Your task to perform on an android device: Search for pizza restaurants on Maps Image 0: 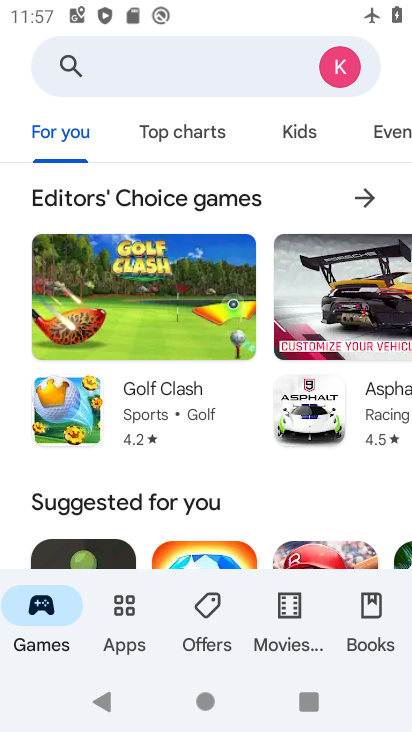
Step 0: press home button
Your task to perform on an android device: Search for pizza restaurants on Maps Image 1: 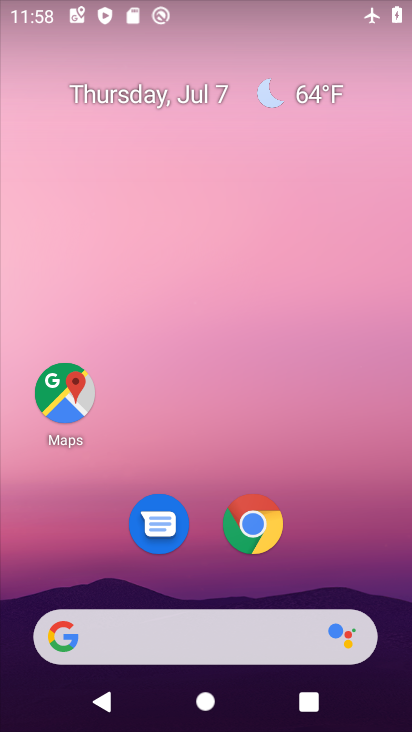
Step 1: click (77, 388)
Your task to perform on an android device: Search for pizza restaurants on Maps Image 2: 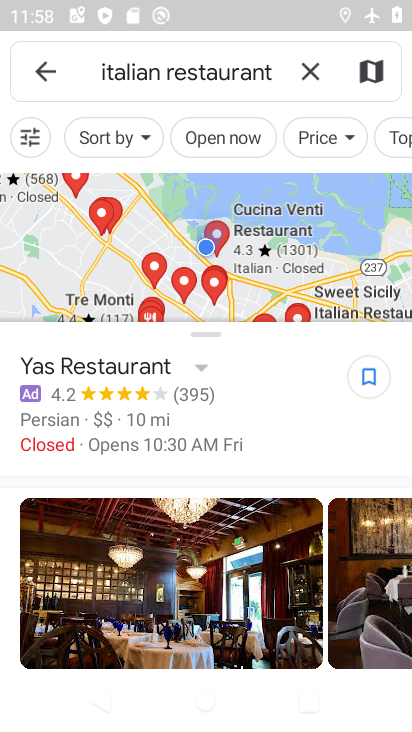
Step 2: click (307, 67)
Your task to perform on an android device: Search for pizza restaurants on Maps Image 3: 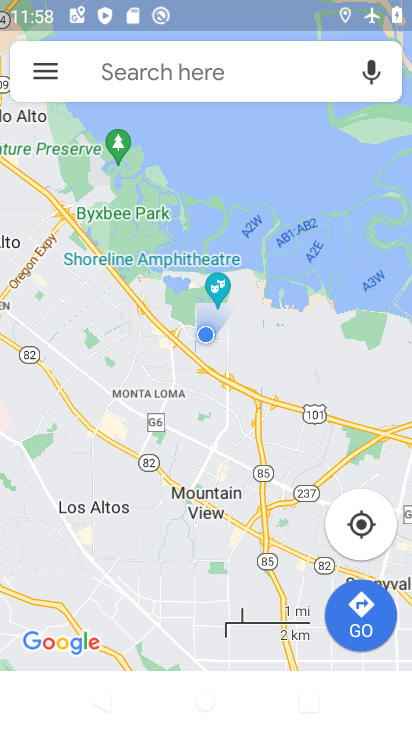
Step 3: click (235, 60)
Your task to perform on an android device: Search for pizza restaurants on Maps Image 4: 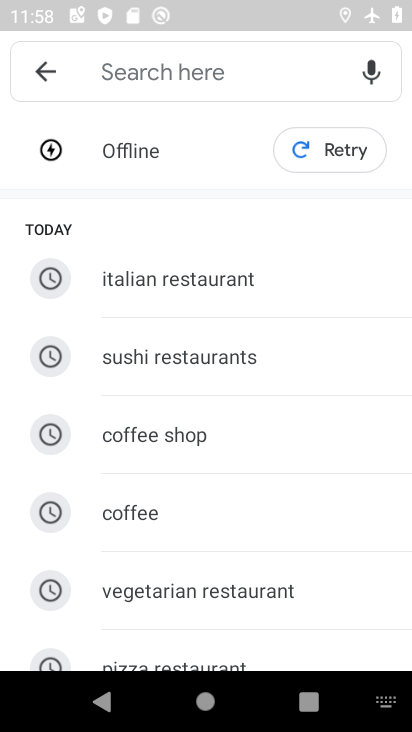
Step 4: drag from (253, 564) to (215, 382)
Your task to perform on an android device: Search for pizza restaurants on Maps Image 5: 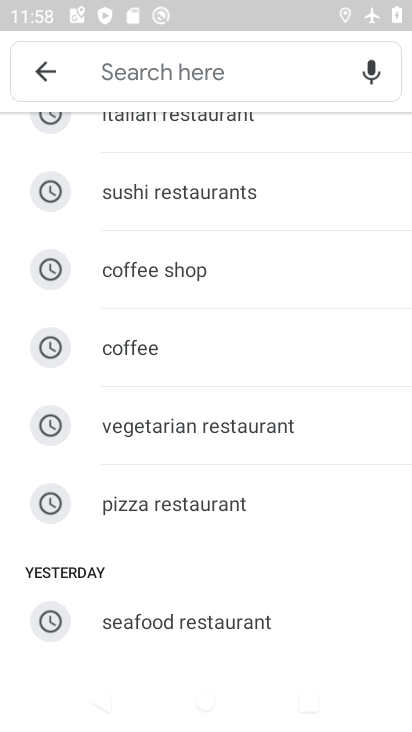
Step 5: click (226, 495)
Your task to perform on an android device: Search for pizza restaurants on Maps Image 6: 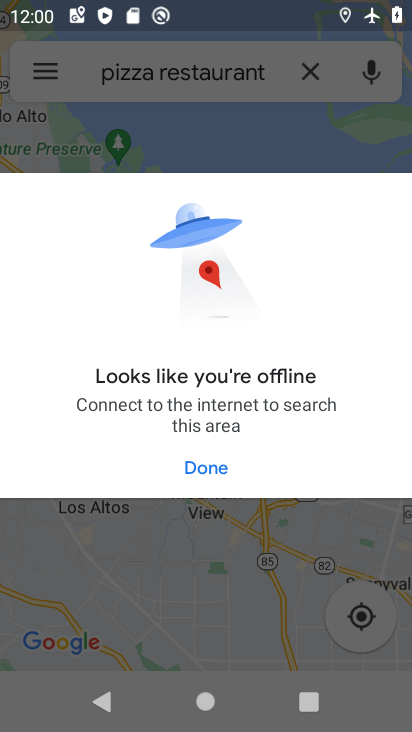
Step 6: task complete